Your task to perform on an android device: turn off javascript in the chrome app Image 0: 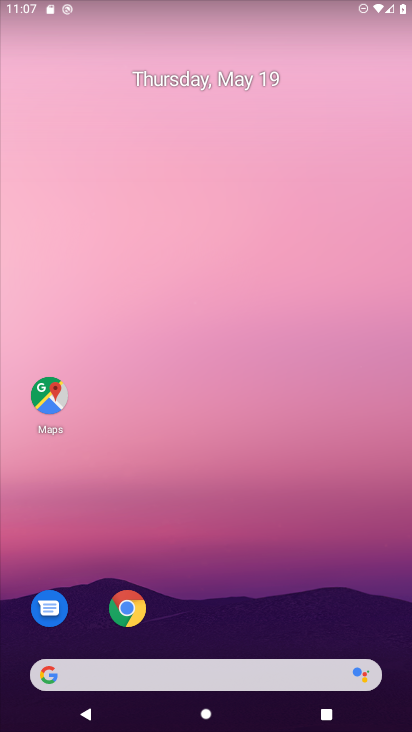
Step 0: press home button
Your task to perform on an android device: turn off javascript in the chrome app Image 1: 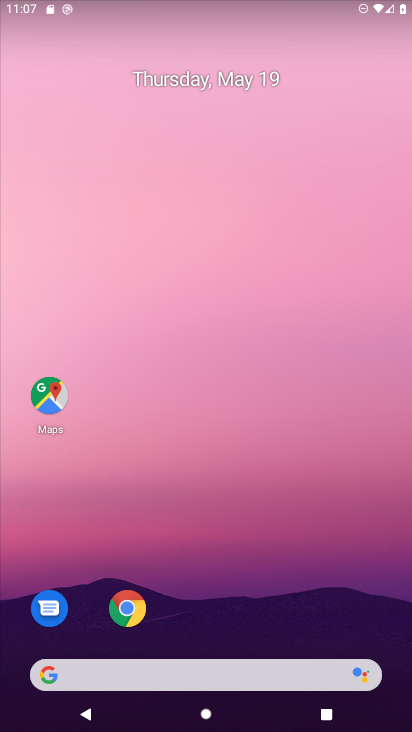
Step 1: click (141, 628)
Your task to perform on an android device: turn off javascript in the chrome app Image 2: 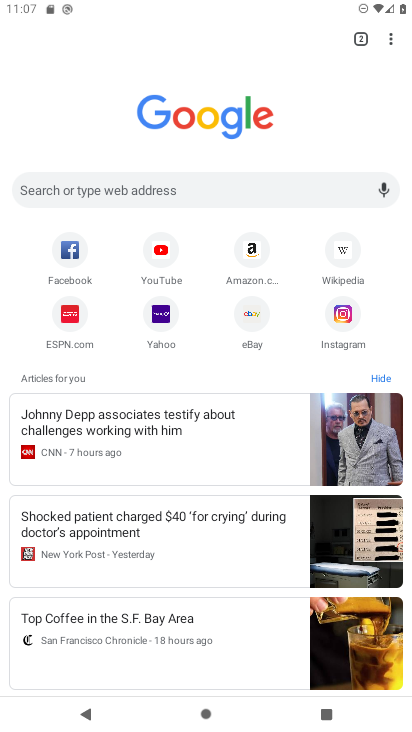
Step 2: drag from (389, 43) to (262, 330)
Your task to perform on an android device: turn off javascript in the chrome app Image 3: 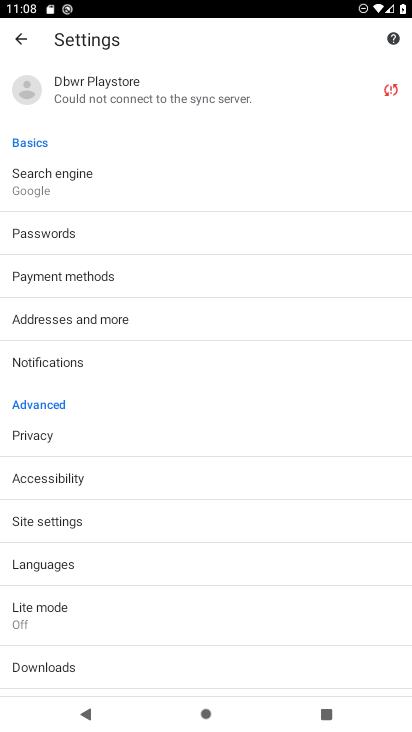
Step 3: click (72, 510)
Your task to perform on an android device: turn off javascript in the chrome app Image 4: 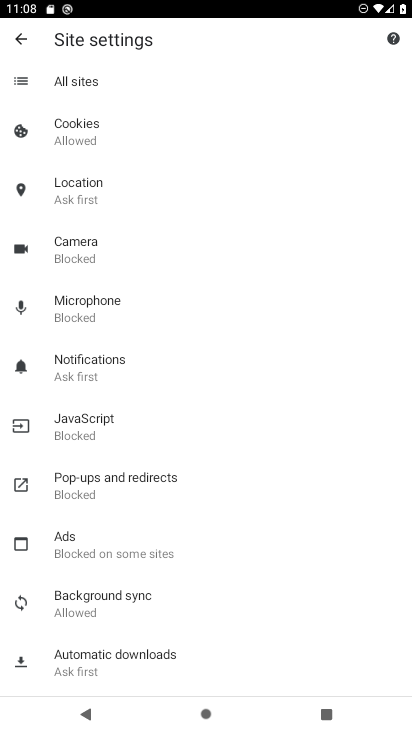
Step 4: click (108, 431)
Your task to perform on an android device: turn off javascript in the chrome app Image 5: 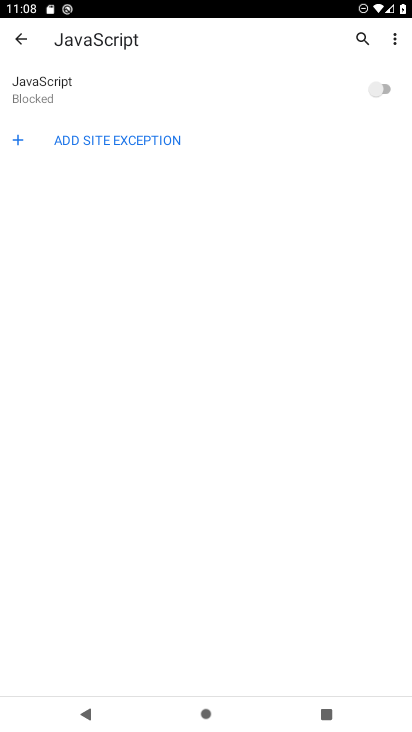
Step 5: task complete